Your task to perform on an android device: turn off notifications settings in the gmail app Image 0: 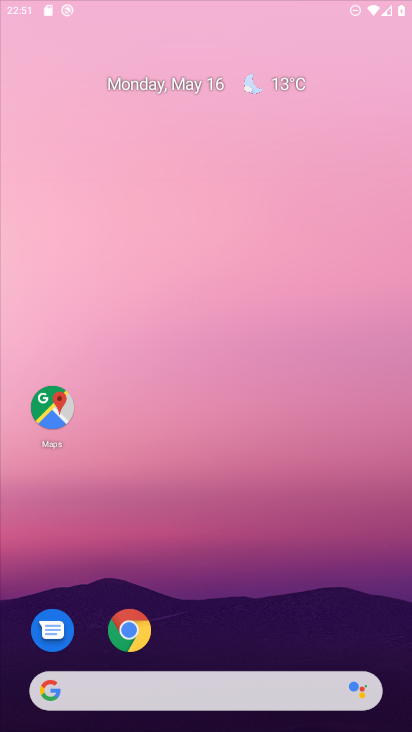
Step 0: drag from (261, 263) to (294, 109)
Your task to perform on an android device: turn off notifications settings in the gmail app Image 1: 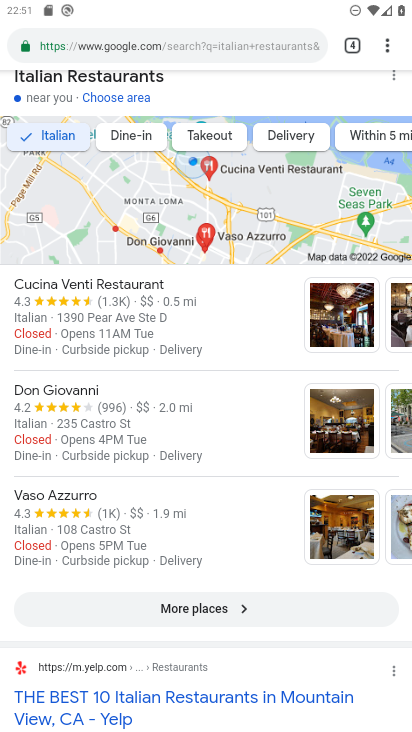
Step 1: press home button
Your task to perform on an android device: turn off notifications settings in the gmail app Image 2: 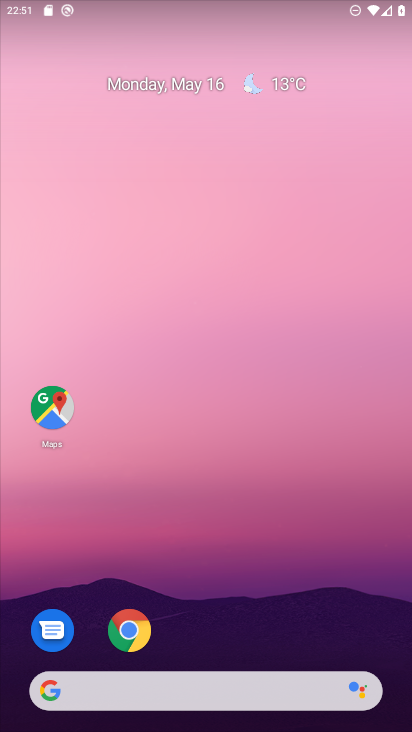
Step 2: drag from (214, 620) to (310, 61)
Your task to perform on an android device: turn off notifications settings in the gmail app Image 3: 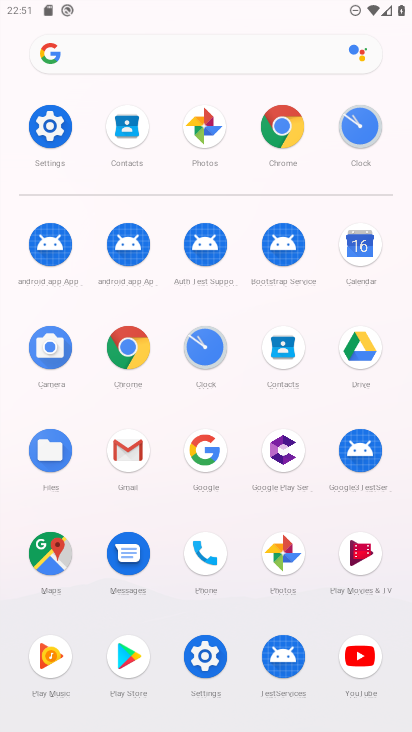
Step 3: click (135, 460)
Your task to perform on an android device: turn off notifications settings in the gmail app Image 4: 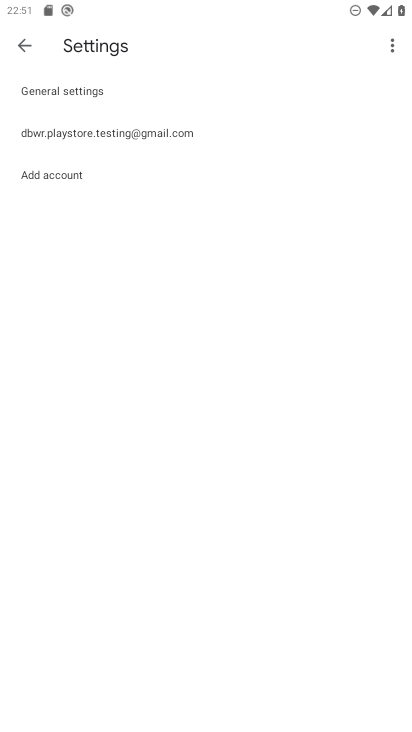
Step 4: click (66, 96)
Your task to perform on an android device: turn off notifications settings in the gmail app Image 5: 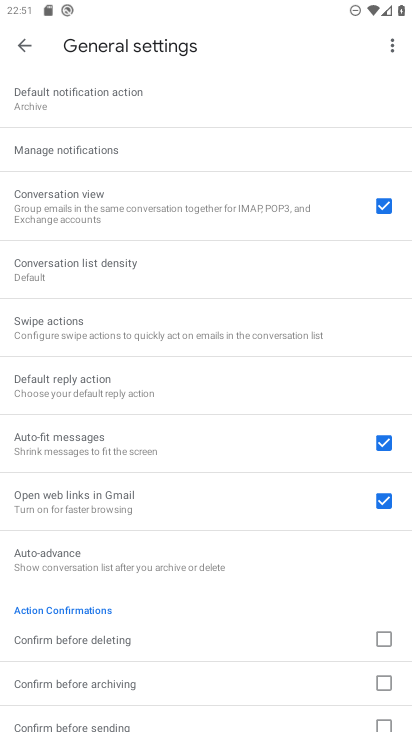
Step 5: click (70, 148)
Your task to perform on an android device: turn off notifications settings in the gmail app Image 6: 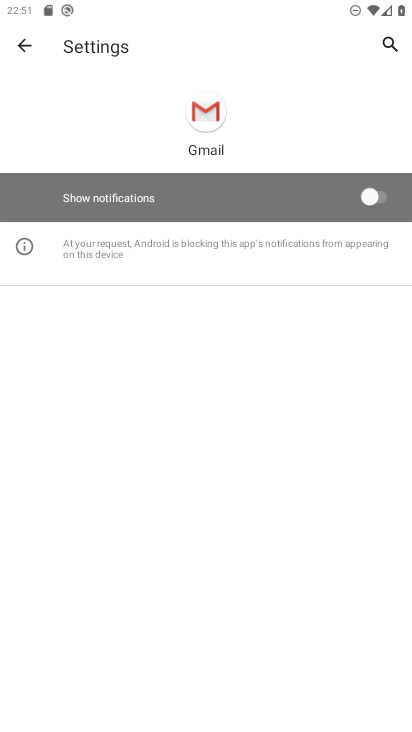
Step 6: task complete